Your task to perform on an android device: Is it going to rain this weekend? Image 0: 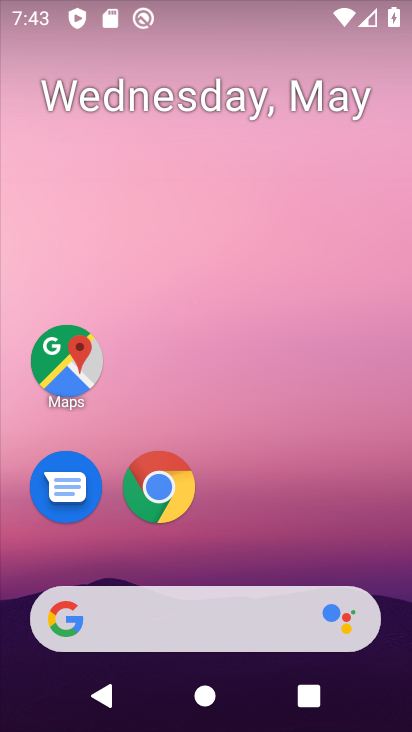
Step 0: click (237, 626)
Your task to perform on an android device: Is it going to rain this weekend? Image 1: 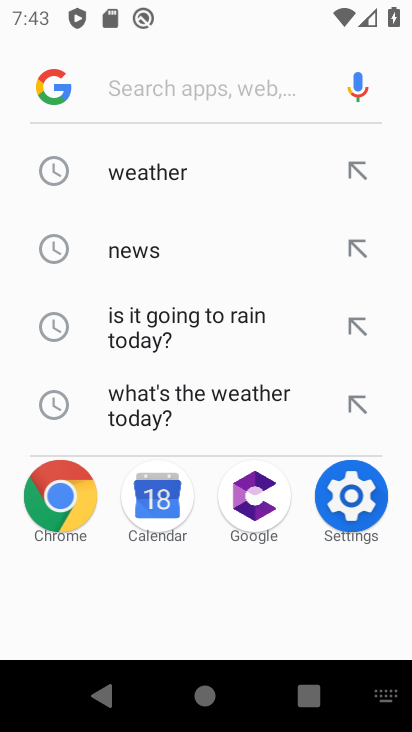
Step 1: click (140, 160)
Your task to perform on an android device: Is it going to rain this weekend? Image 2: 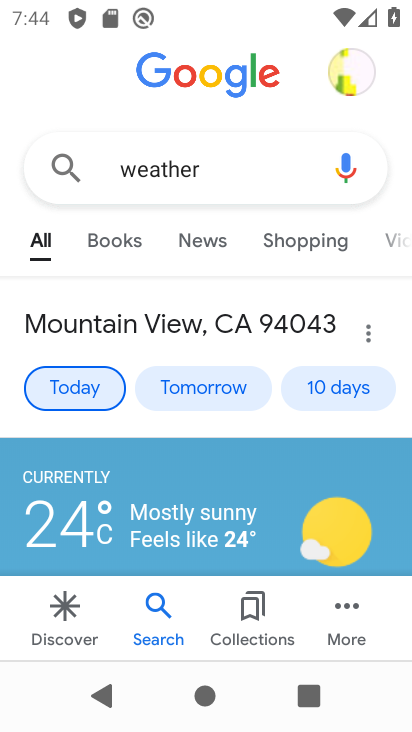
Step 2: click (98, 388)
Your task to perform on an android device: Is it going to rain this weekend? Image 3: 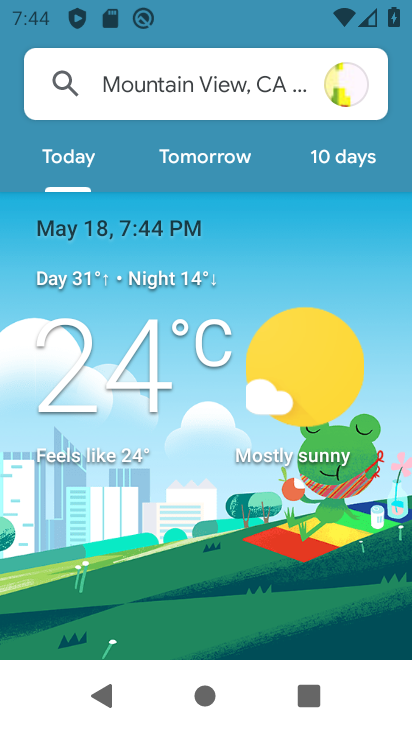
Step 3: click (348, 154)
Your task to perform on an android device: Is it going to rain this weekend? Image 4: 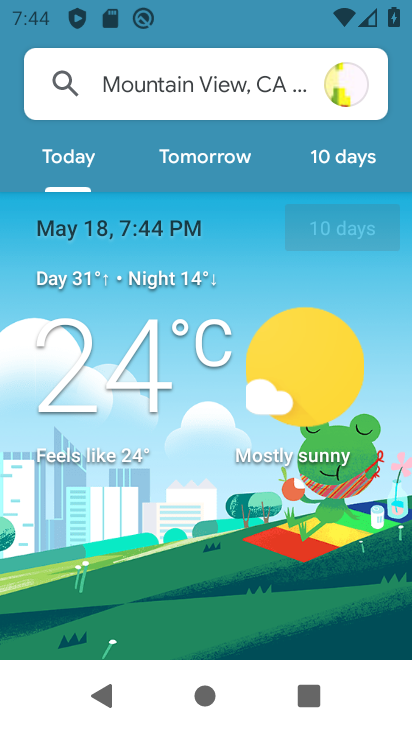
Step 4: click (350, 154)
Your task to perform on an android device: Is it going to rain this weekend? Image 5: 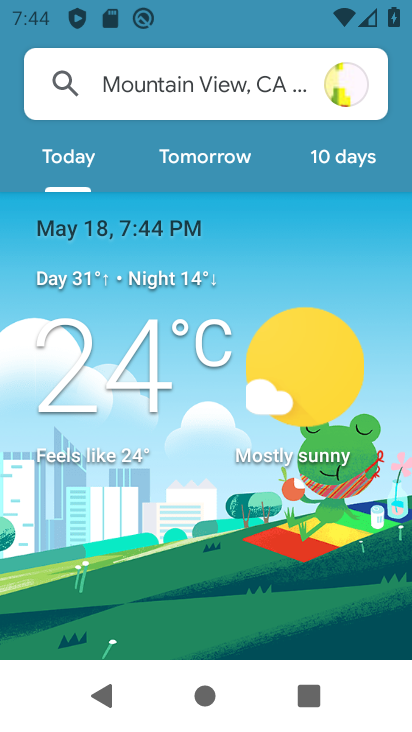
Step 5: click (193, 150)
Your task to perform on an android device: Is it going to rain this weekend? Image 6: 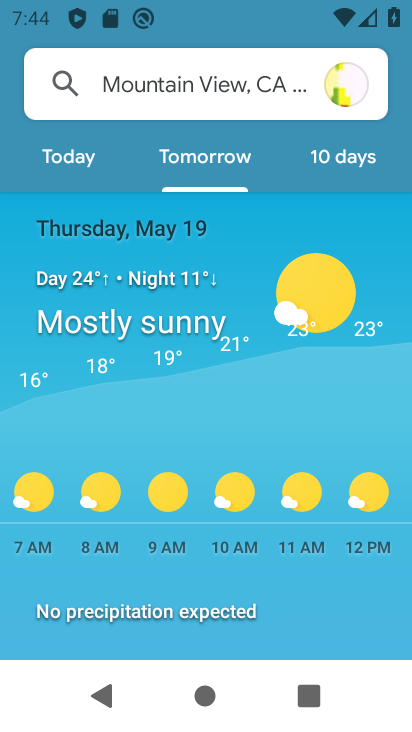
Step 6: click (326, 148)
Your task to perform on an android device: Is it going to rain this weekend? Image 7: 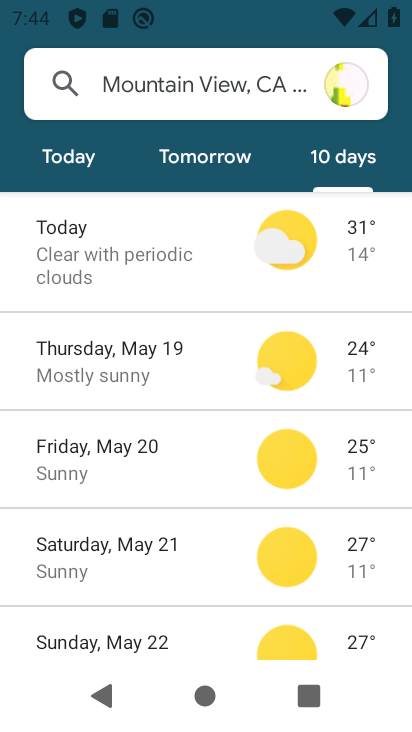
Step 7: click (95, 554)
Your task to perform on an android device: Is it going to rain this weekend? Image 8: 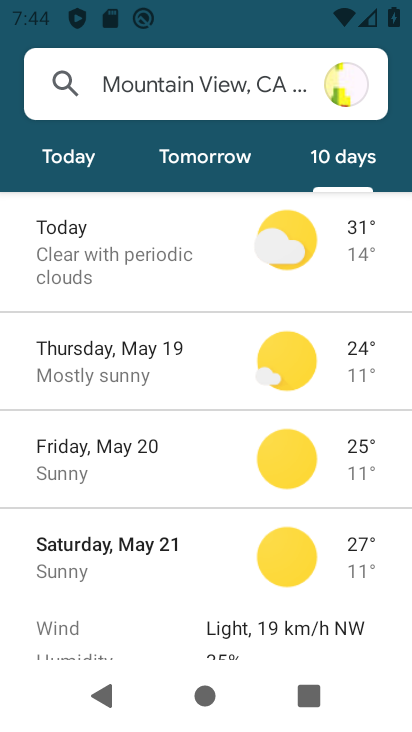
Step 8: task complete